Your task to perform on an android device: turn on improve location accuracy Image 0: 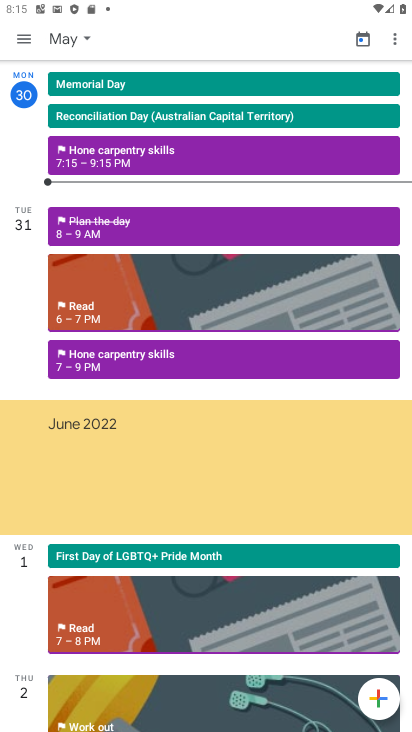
Step 0: drag from (227, 581) to (250, 104)
Your task to perform on an android device: turn on improve location accuracy Image 1: 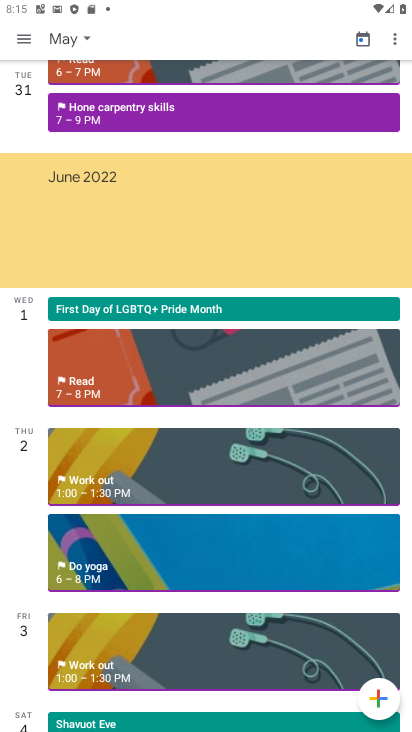
Step 1: press home button
Your task to perform on an android device: turn on improve location accuracy Image 2: 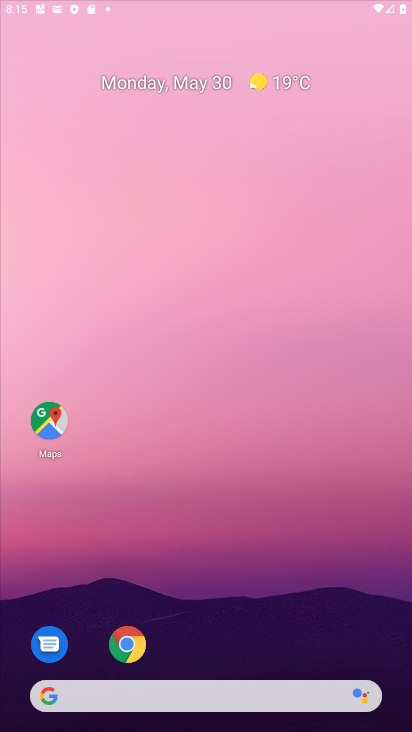
Step 2: drag from (206, 653) to (245, 69)
Your task to perform on an android device: turn on improve location accuracy Image 3: 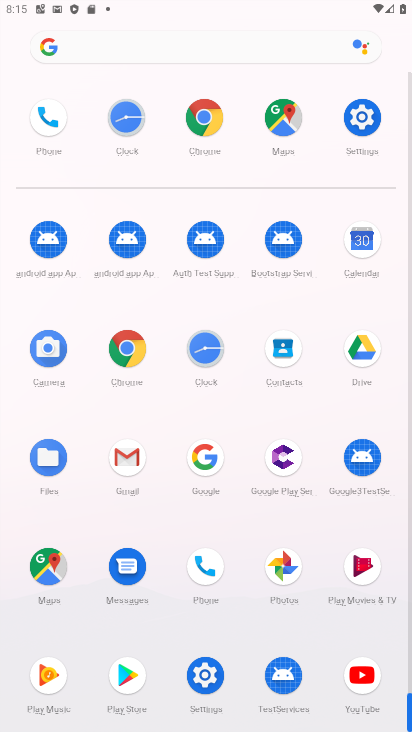
Step 3: click (350, 111)
Your task to perform on an android device: turn on improve location accuracy Image 4: 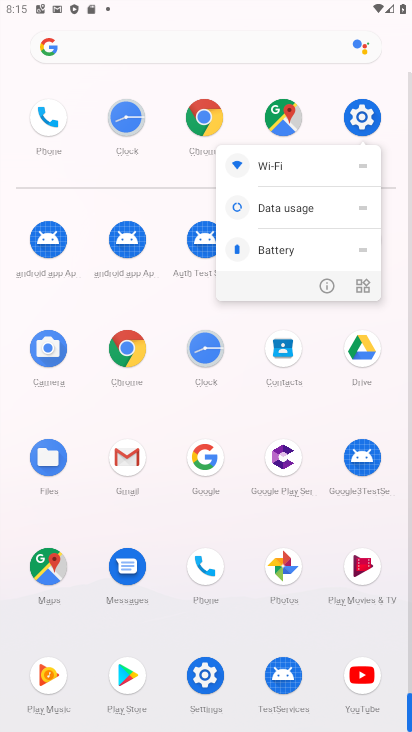
Step 4: click (324, 286)
Your task to perform on an android device: turn on improve location accuracy Image 5: 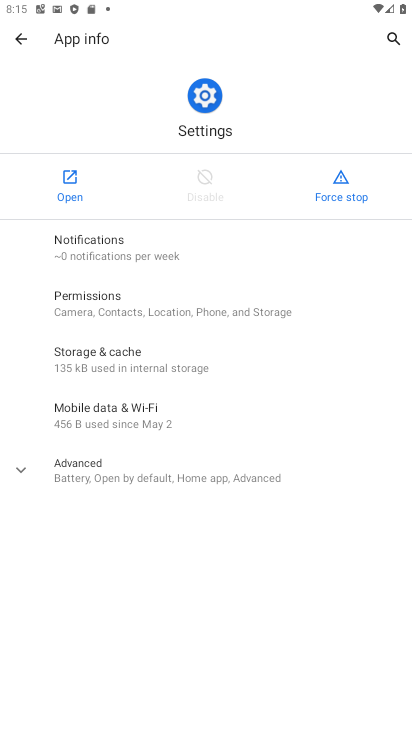
Step 5: click (56, 178)
Your task to perform on an android device: turn on improve location accuracy Image 6: 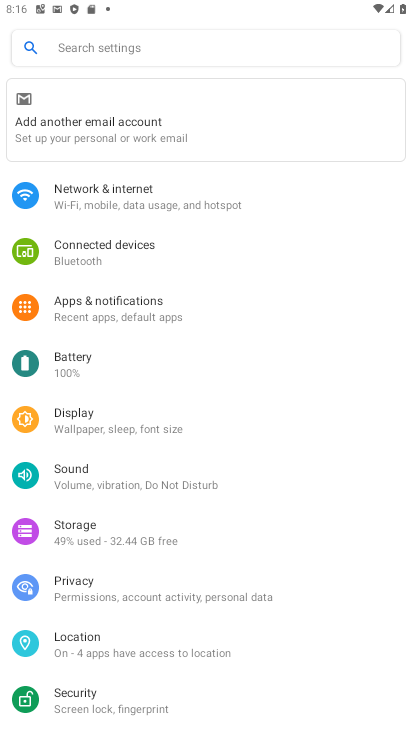
Step 6: click (104, 652)
Your task to perform on an android device: turn on improve location accuracy Image 7: 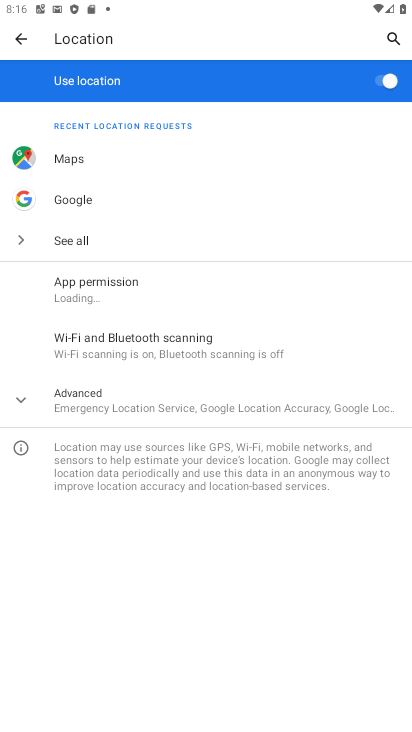
Step 7: click (94, 395)
Your task to perform on an android device: turn on improve location accuracy Image 8: 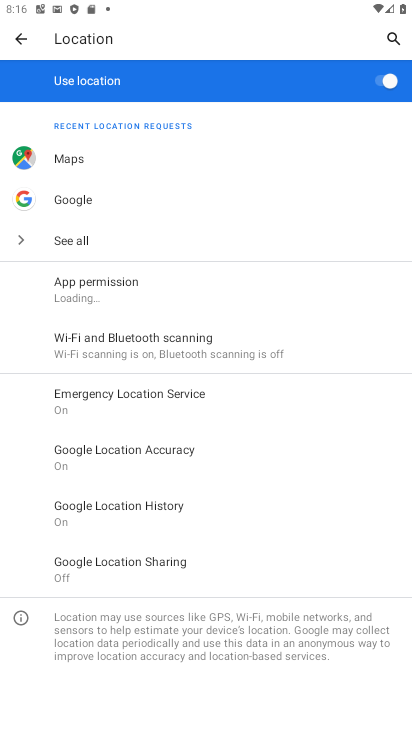
Step 8: click (198, 457)
Your task to perform on an android device: turn on improve location accuracy Image 9: 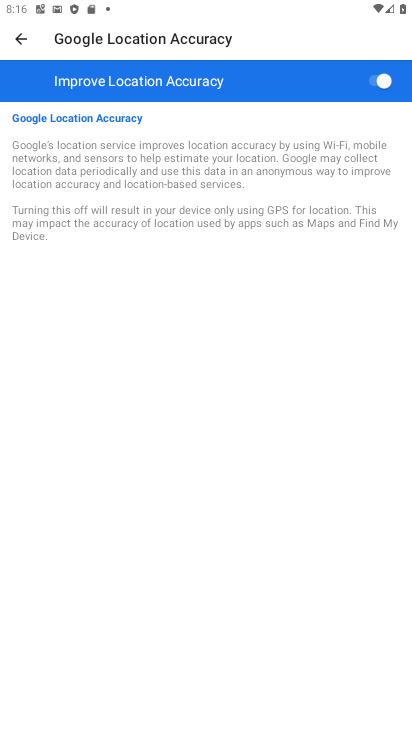
Step 9: task complete